Your task to perform on an android device: check google app version Image 0: 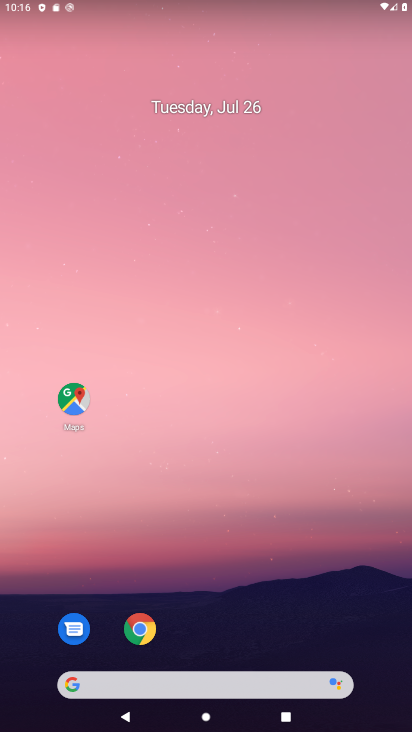
Step 0: drag from (261, 594) to (124, 8)
Your task to perform on an android device: check google app version Image 1: 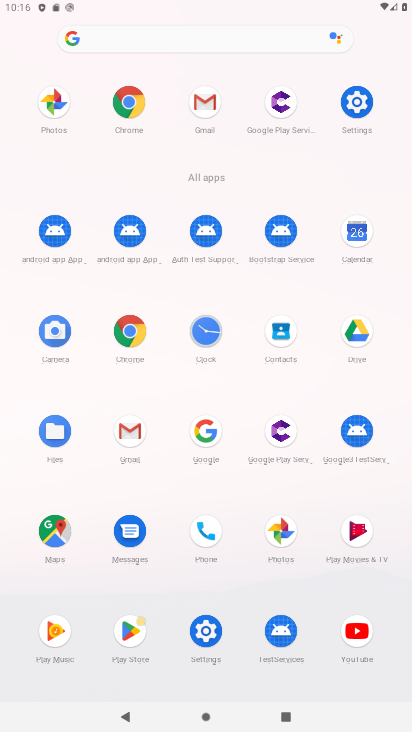
Step 1: click (195, 438)
Your task to perform on an android device: check google app version Image 2: 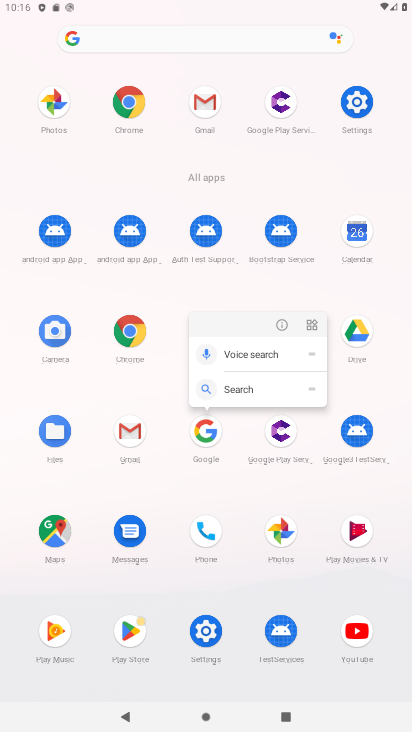
Step 2: click (277, 323)
Your task to perform on an android device: check google app version Image 3: 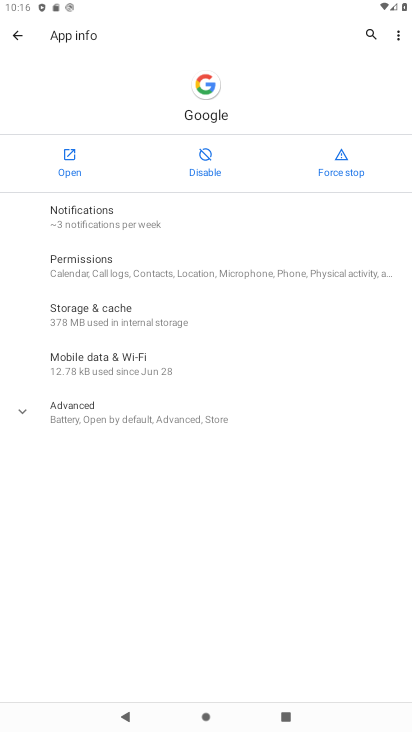
Step 3: click (86, 413)
Your task to perform on an android device: check google app version Image 4: 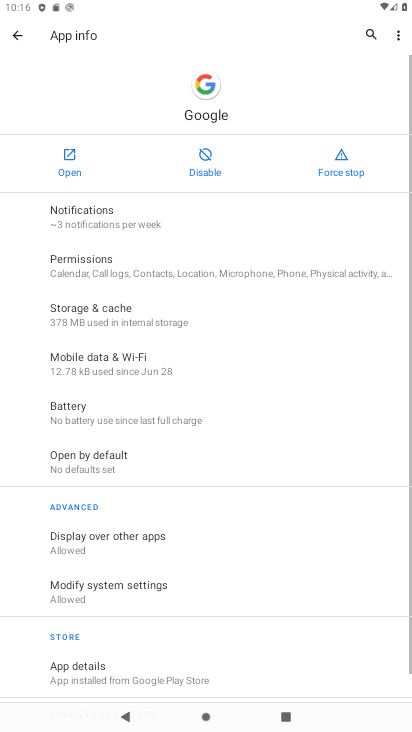
Step 4: task complete